Your task to perform on an android device: Show the shopping cart on costco. Search for razer blade on costco, select the first entry, and add it to the cart. Image 0: 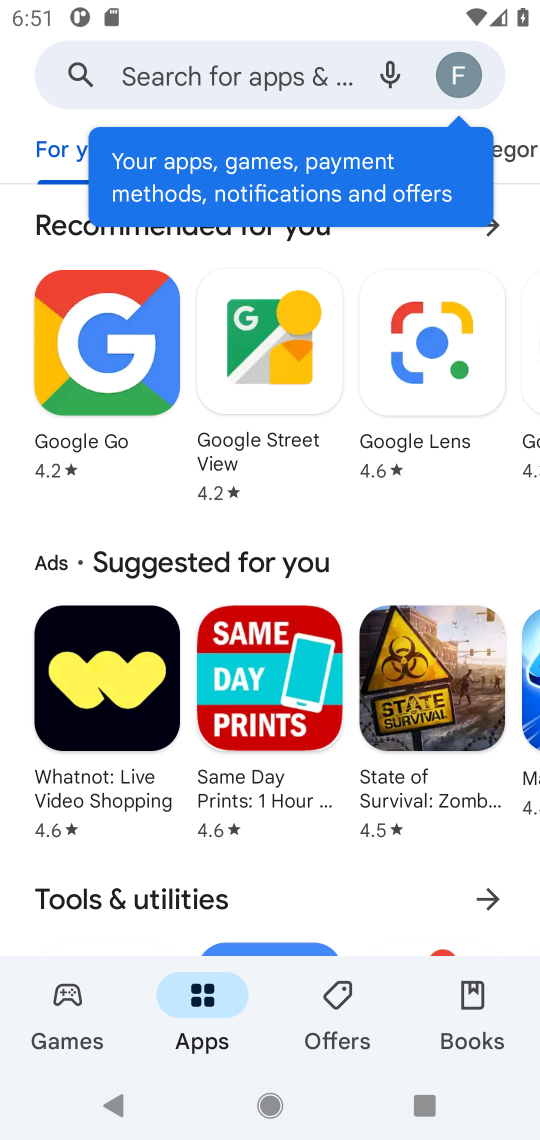
Step 0: press home button
Your task to perform on an android device: Show the shopping cart on costco. Search for razer blade on costco, select the first entry, and add it to the cart. Image 1: 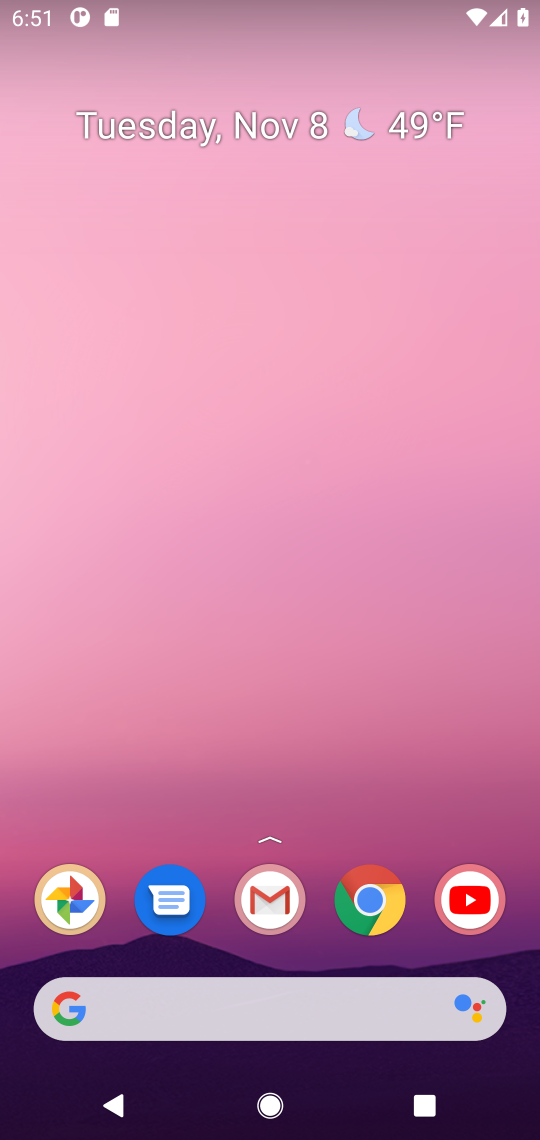
Step 1: drag from (304, 791) to (302, 321)
Your task to perform on an android device: Show the shopping cart on costco. Search for razer blade on costco, select the first entry, and add it to the cart. Image 2: 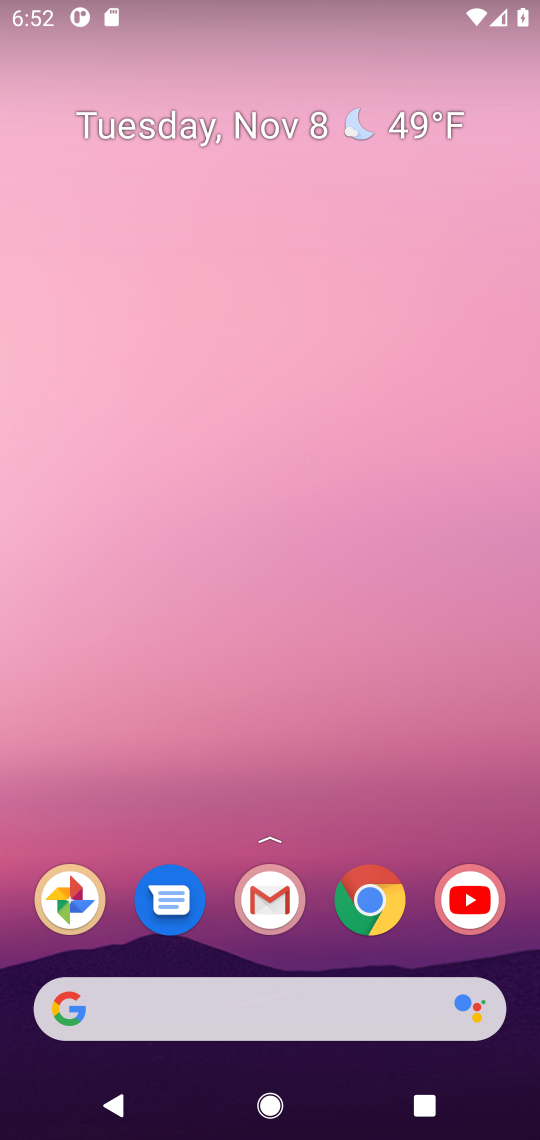
Step 2: drag from (285, 953) to (290, 27)
Your task to perform on an android device: Show the shopping cart on costco. Search for razer blade on costco, select the first entry, and add it to the cart. Image 3: 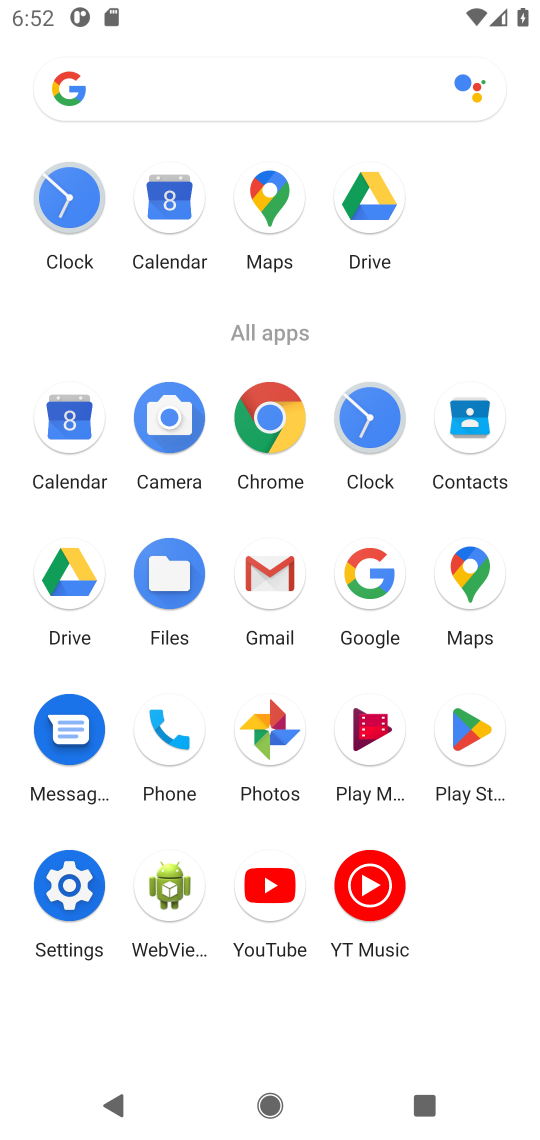
Step 3: click (364, 568)
Your task to perform on an android device: Show the shopping cart on costco. Search for razer blade on costco, select the first entry, and add it to the cart. Image 4: 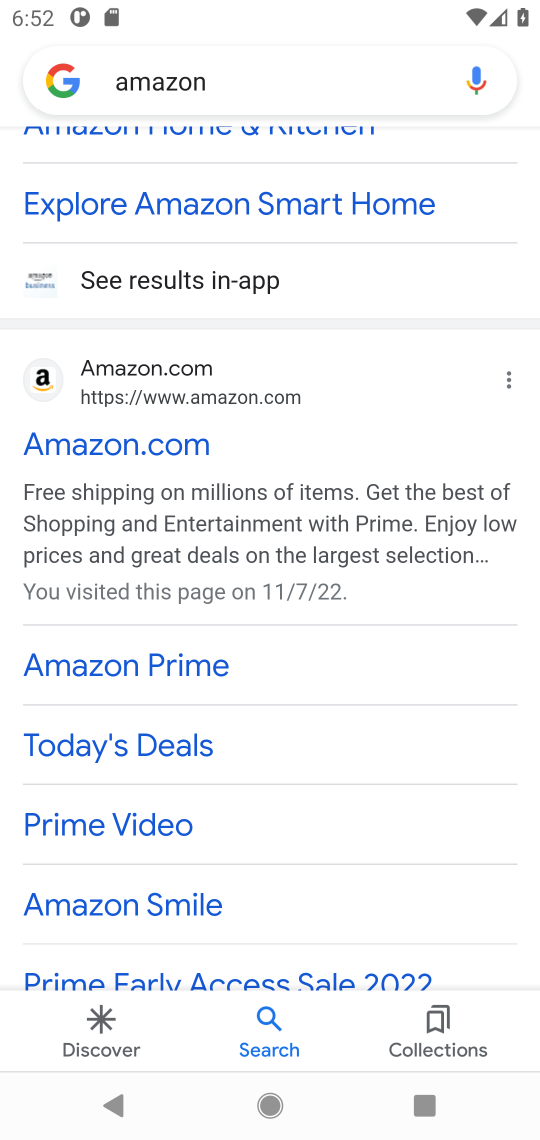
Step 4: click (273, 84)
Your task to perform on an android device: Show the shopping cart on costco. Search for razer blade on costco, select the first entry, and add it to the cart. Image 5: 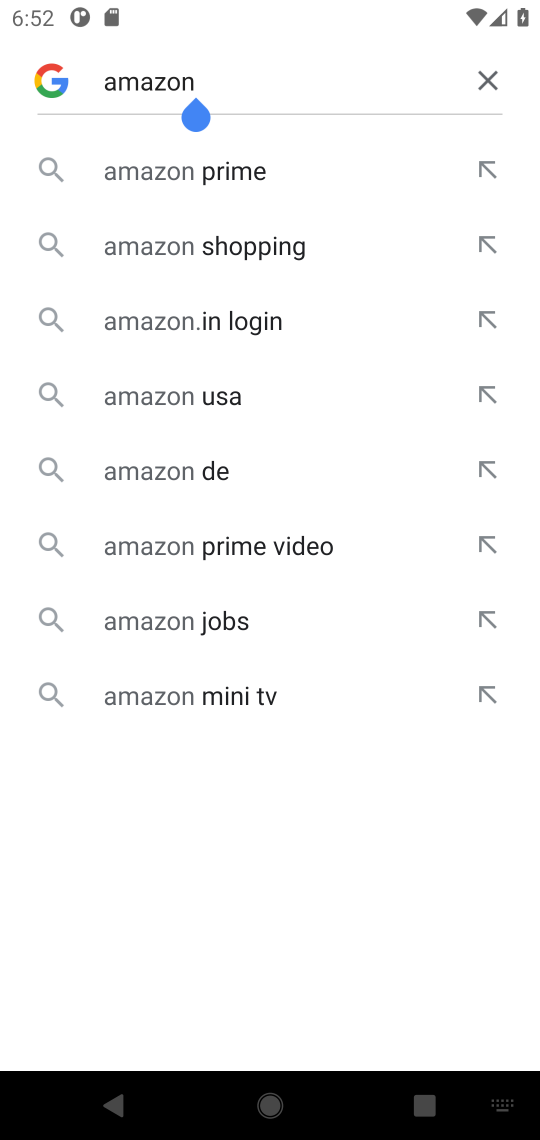
Step 5: click (469, 75)
Your task to perform on an android device: Show the shopping cart on costco. Search for razer blade on costco, select the first entry, and add it to the cart. Image 6: 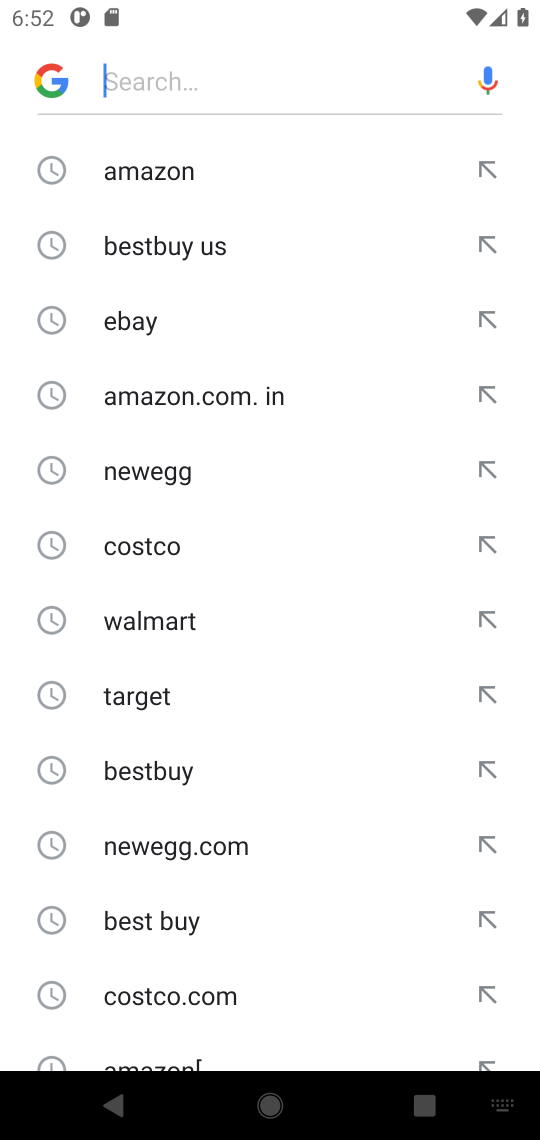
Step 6: click (144, 539)
Your task to perform on an android device: Show the shopping cart on costco. Search for razer blade on costco, select the first entry, and add it to the cart. Image 7: 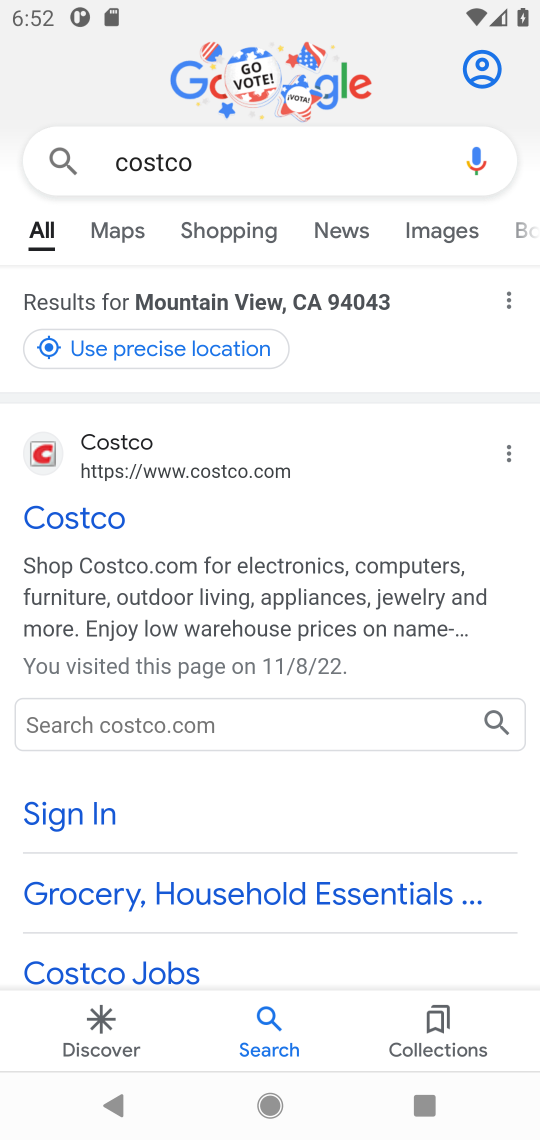
Step 7: click (37, 436)
Your task to perform on an android device: Show the shopping cart on costco. Search for razer blade on costco, select the first entry, and add it to the cart. Image 8: 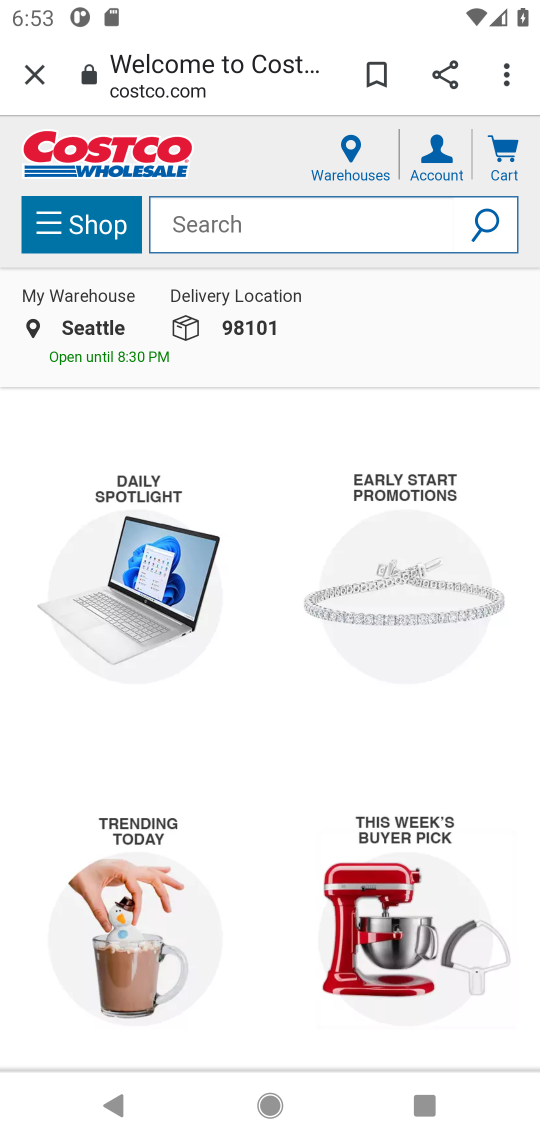
Step 8: click (318, 202)
Your task to perform on an android device: Show the shopping cart on costco. Search for razer blade on costco, select the first entry, and add it to the cart. Image 9: 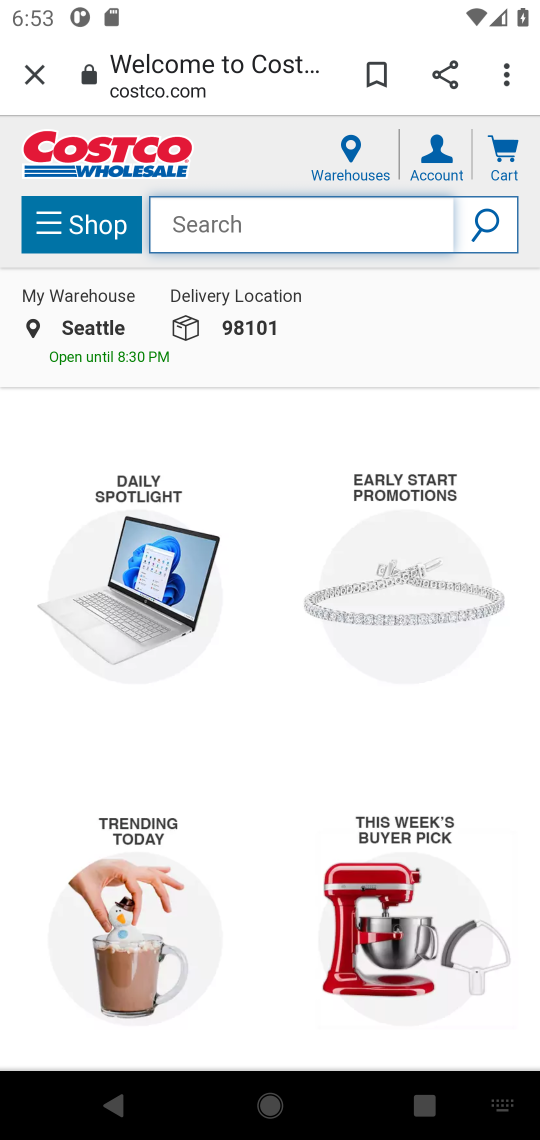
Step 9: type "razer "
Your task to perform on an android device: Show the shopping cart on costco. Search for razer blade on costco, select the first entry, and add it to the cart. Image 10: 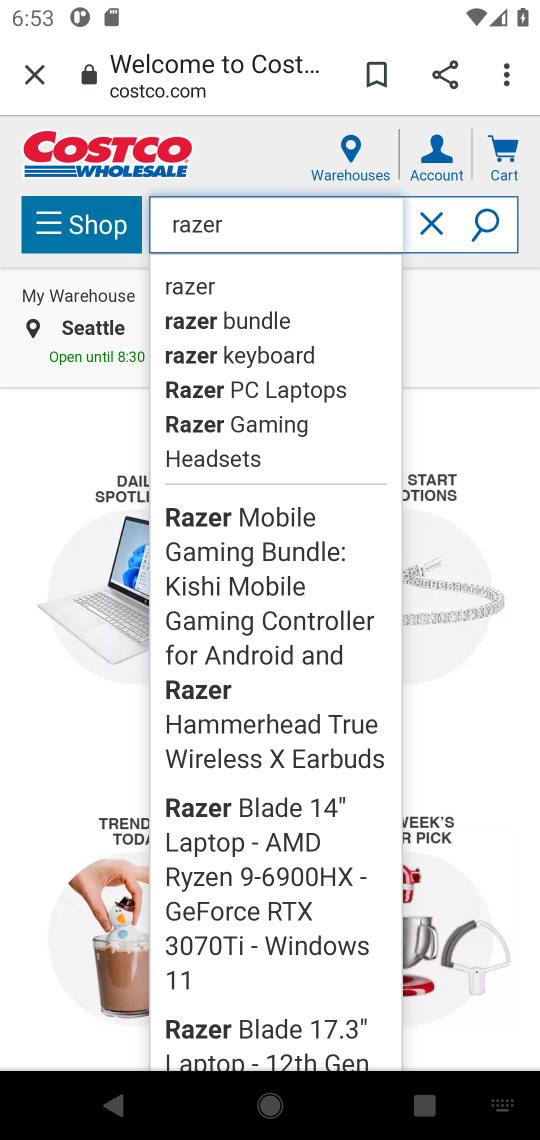
Step 10: click (200, 283)
Your task to perform on an android device: Show the shopping cart on costco. Search for razer blade on costco, select the first entry, and add it to the cart. Image 11: 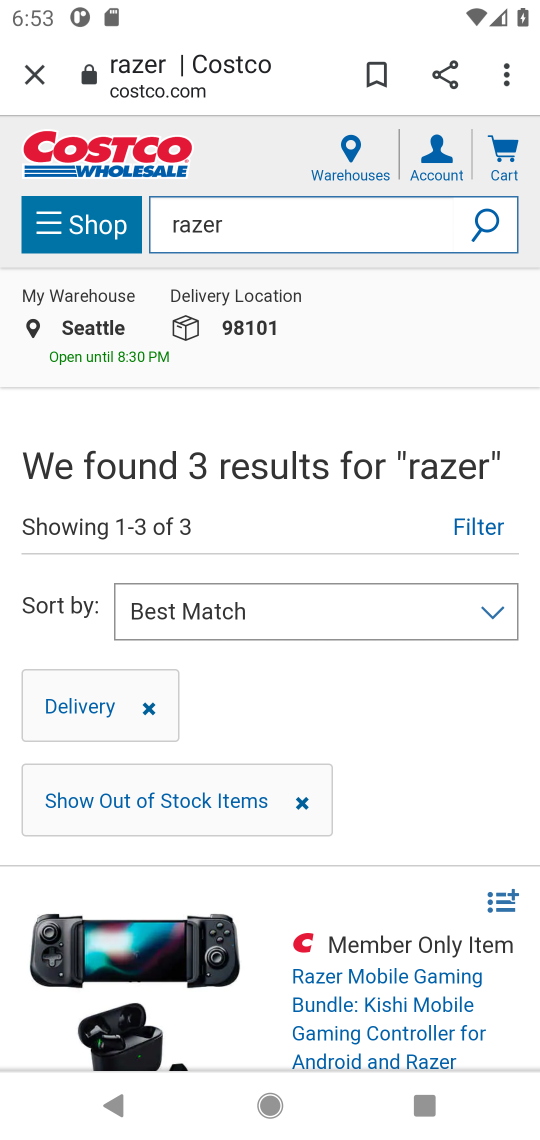
Step 11: click (486, 209)
Your task to perform on an android device: Show the shopping cart on costco. Search for razer blade on costco, select the first entry, and add it to the cart. Image 12: 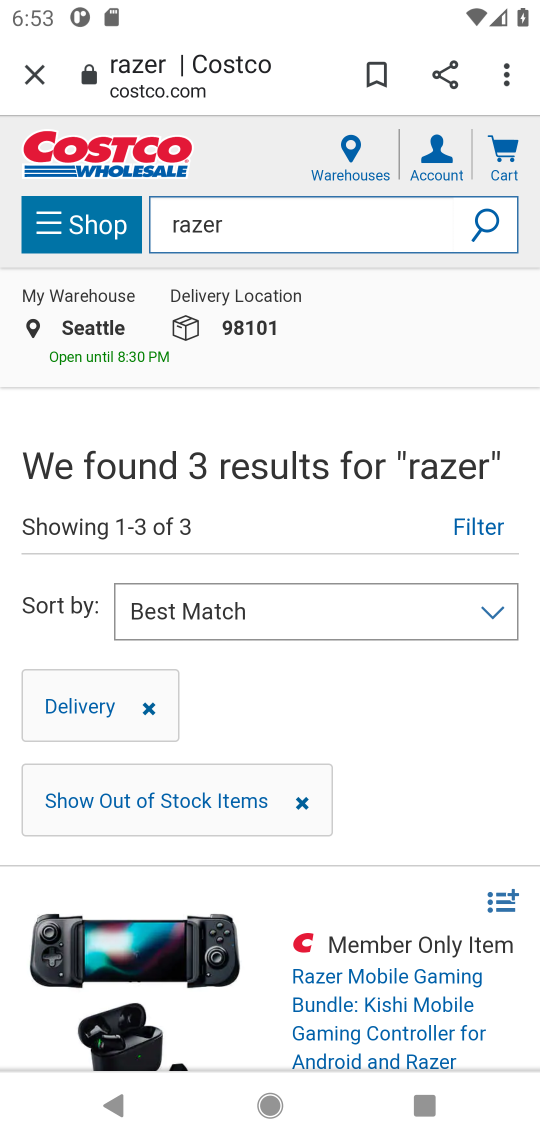
Step 12: click (301, 209)
Your task to perform on an android device: Show the shopping cart on costco. Search for razer blade on costco, select the first entry, and add it to the cart. Image 13: 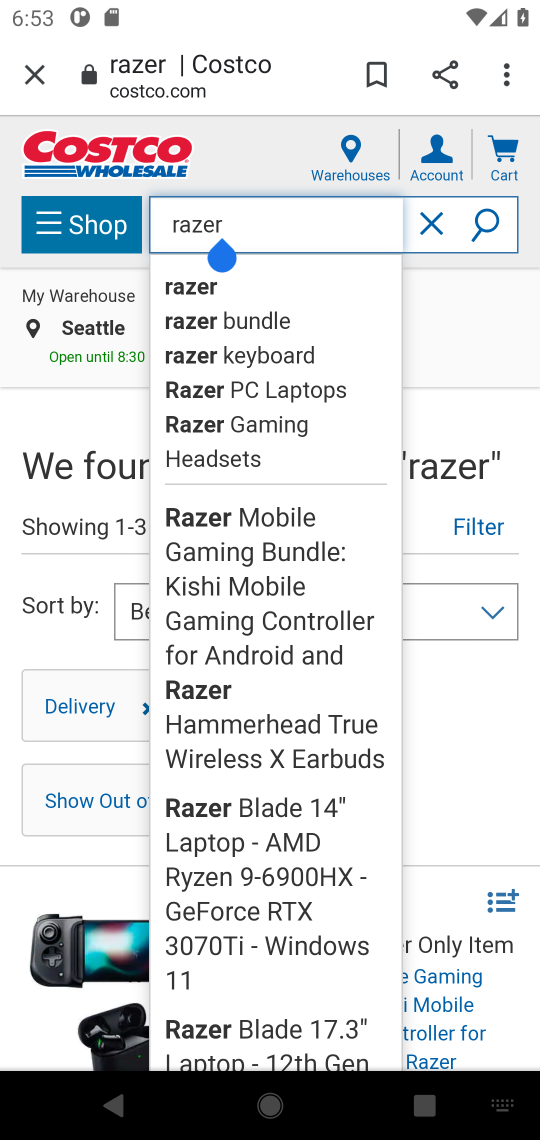
Step 13: click (448, 206)
Your task to perform on an android device: Show the shopping cart on costco. Search for razer blade on costco, select the first entry, and add it to the cart. Image 14: 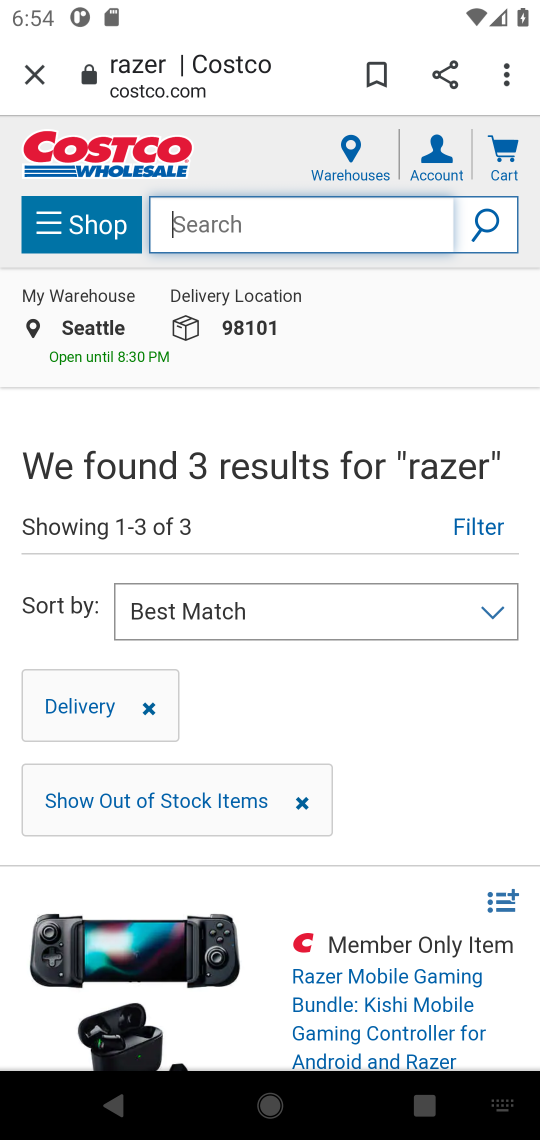
Step 14: click (284, 214)
Your task to perform on an android device: Show the shopping cart on costco. Search for razer blade on costco, select the first entry, and add it to the cart. Image 15: 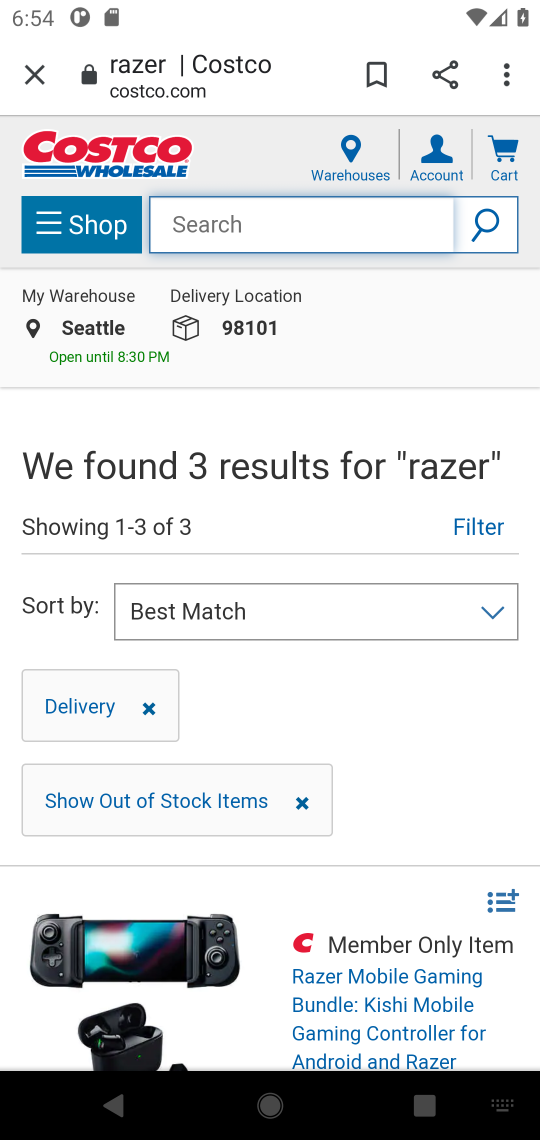
Step 15: type " razer blade "
Your task to perform on an android device: Show the shopping cart on costco. Search for razer blade on costco, select the first entry, and add it to the cart. Image 16: 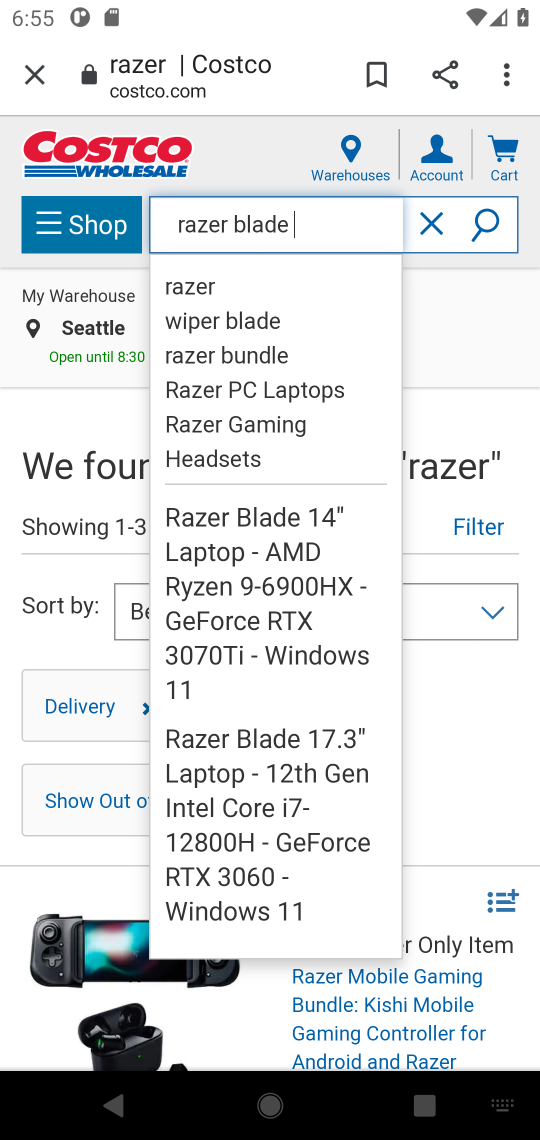
Step 16: click (237, 323)
Your task to perform on an android device: Show the shopping cart on costco. Search for razer blade on costco, select the first entry, and add it to the cart. Image 17: 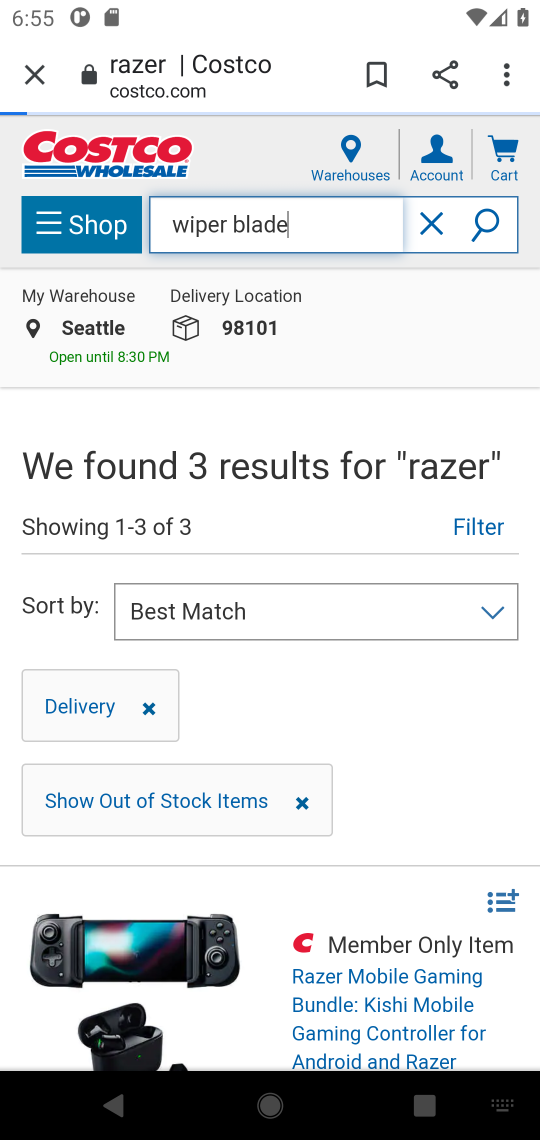
Step 17: click (237, 323)
Your task to perform on an android device: Show the shopping cart on costco. Search for razer blade on costco, select the first entry, and add it to the cart. Image 18: 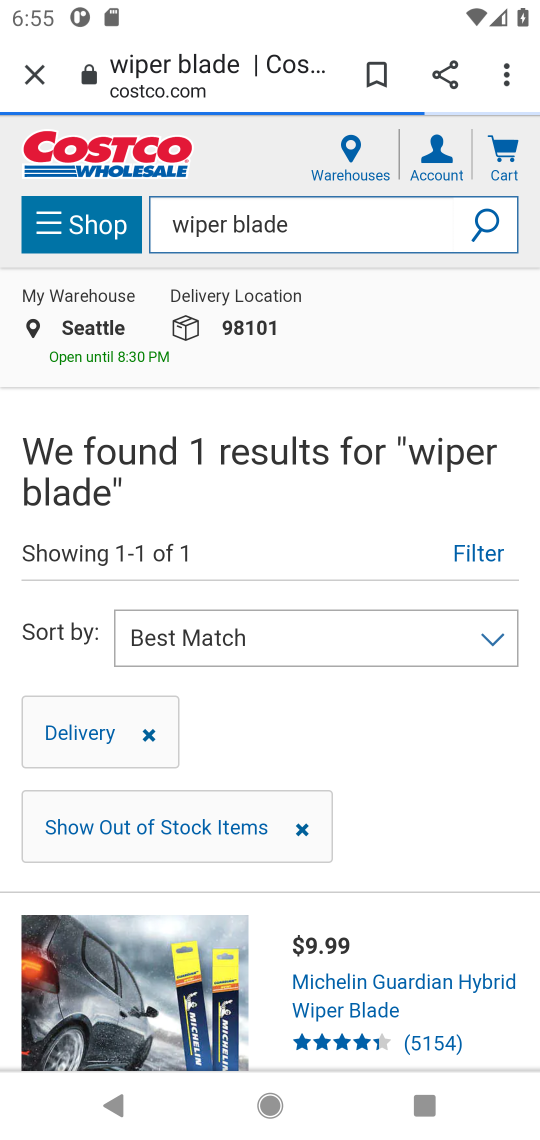
Step 18: click (491, 229)
Your task to perform on an android device: Show the shopping cart on costco. Search for razer blade on costco, select the first entry, and add it to the cart. Image 19: 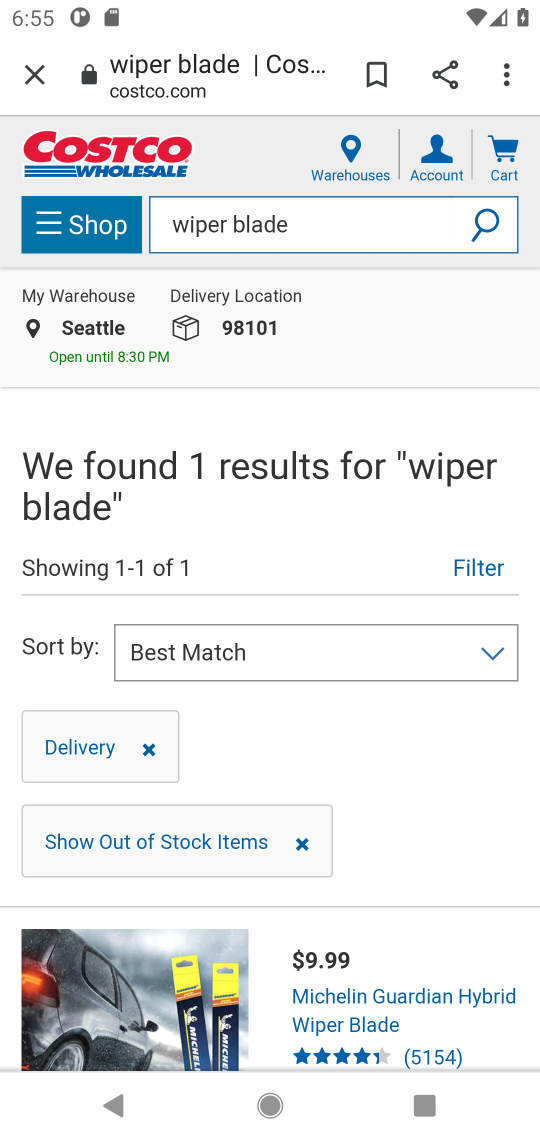
Step 19: click (356, 225)
Your task to perform on an android device: Show the shopping cart on costco. Search for razer blade on costco, select the first entry, and add it to the cart. Image 20: 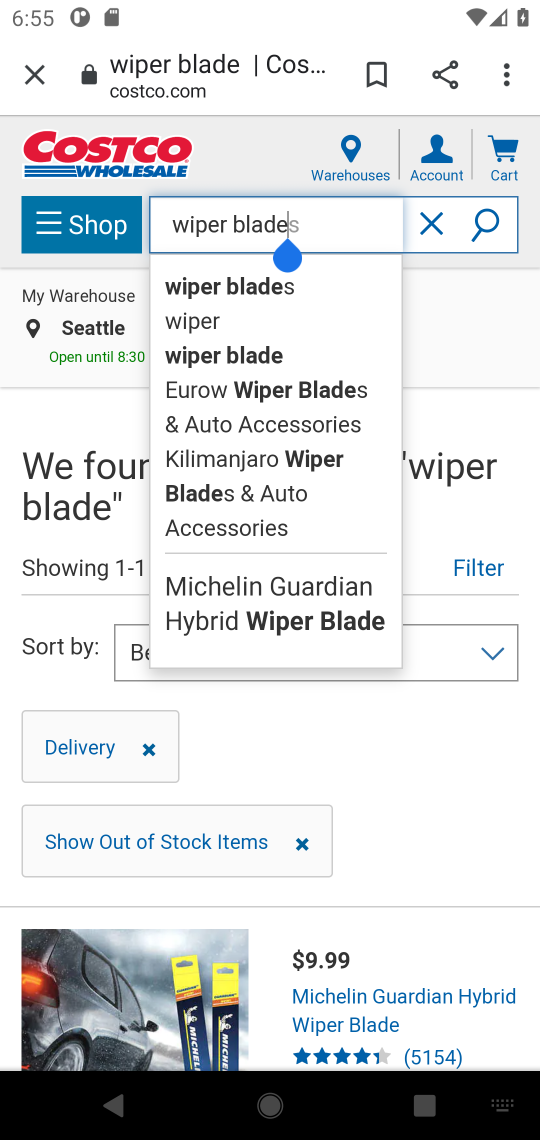
Step 20: click (425, 216)
Your task to perform on an android device: Show the shopping cart on costco. Search for razer blade on costco, select the first entry, and add it to the cart. Image 21: 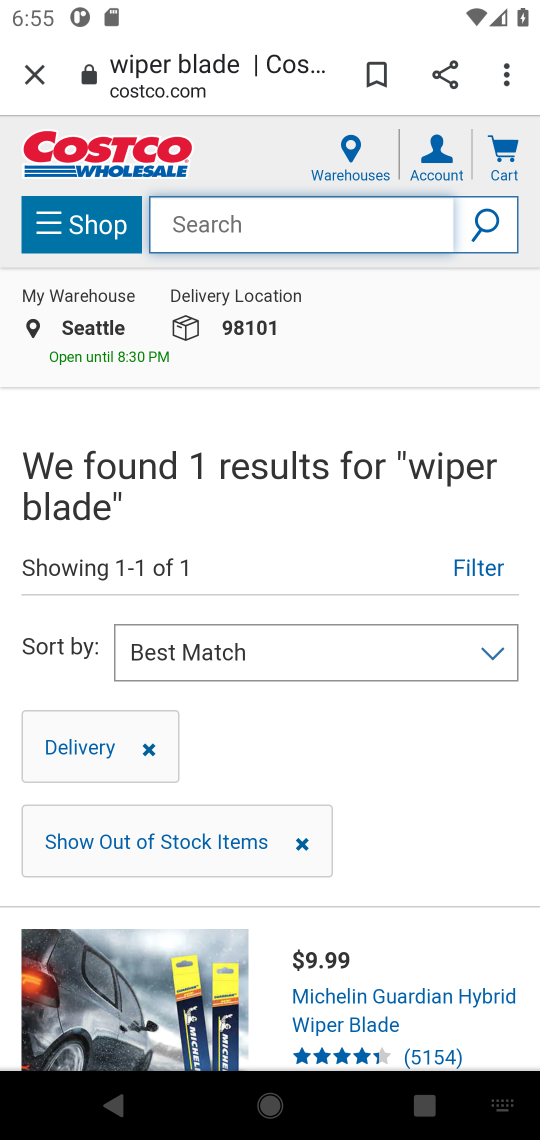
Step 21: click (264, 224)
Your task to perform on an android device: Show the shopping cart on costco. Search for razer blade on costco, select the first entry, and add it to the cart. Image 22: 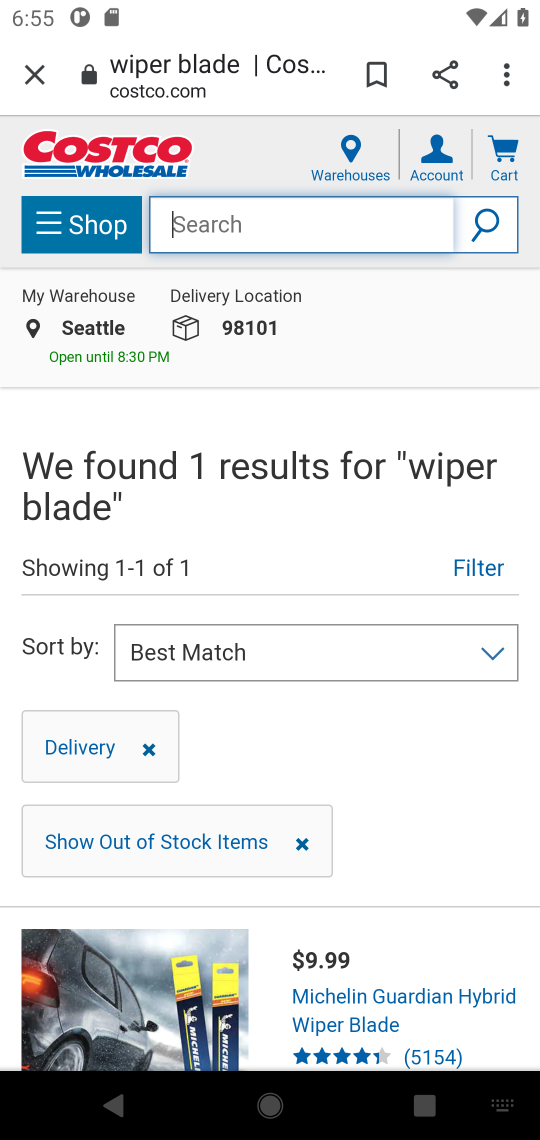
Step 22: type " razer blade "
Your task to perform on an android device: Show the shopping cart on costco. Search for razer blade on costco, select the first entry, and add it to the cart. Image 23: 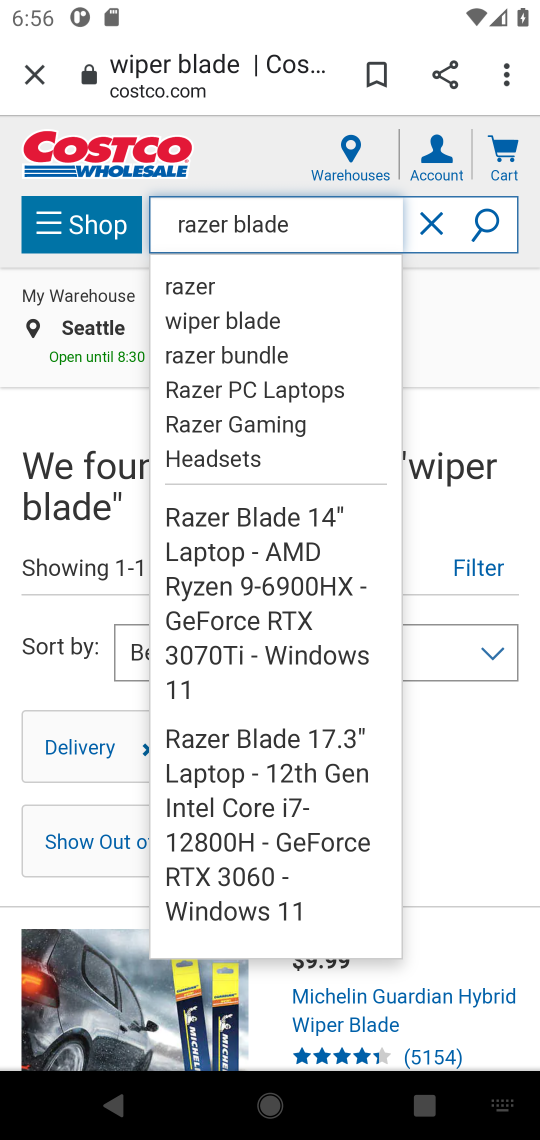
Step 23: click (196, 281)
Your task to perform on an android device: Show the shopping cart on costco. Search for razer blade on costco, select the first entry, and add it to the cart. Image 24: 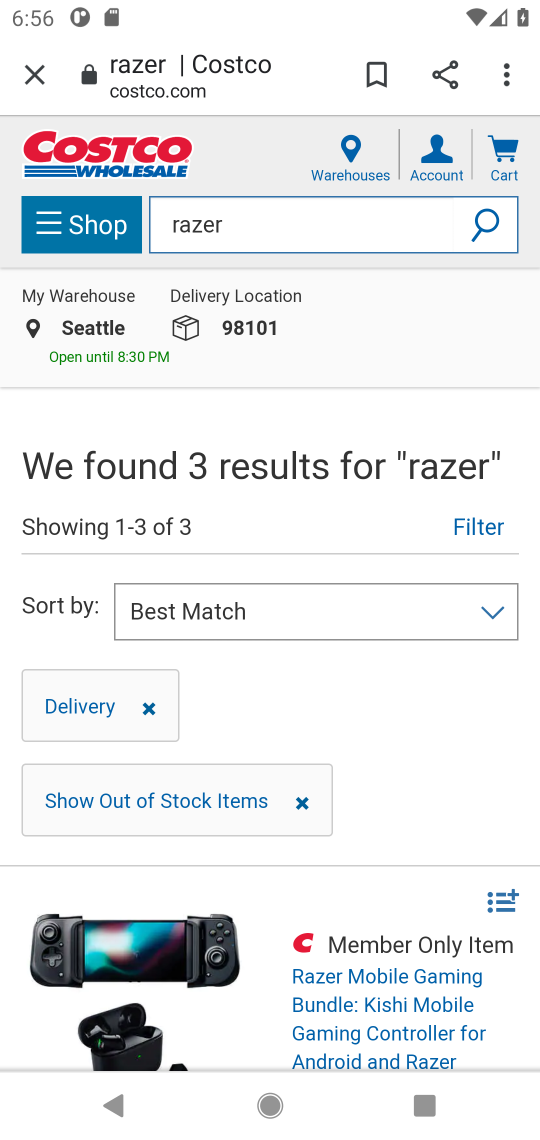
Step 24: click (347, 218)
Your task to perform on an android device: Show the shopping cart on costco. Search for razer blade on costco, select the first entry, and add it to the cart. Image 25: 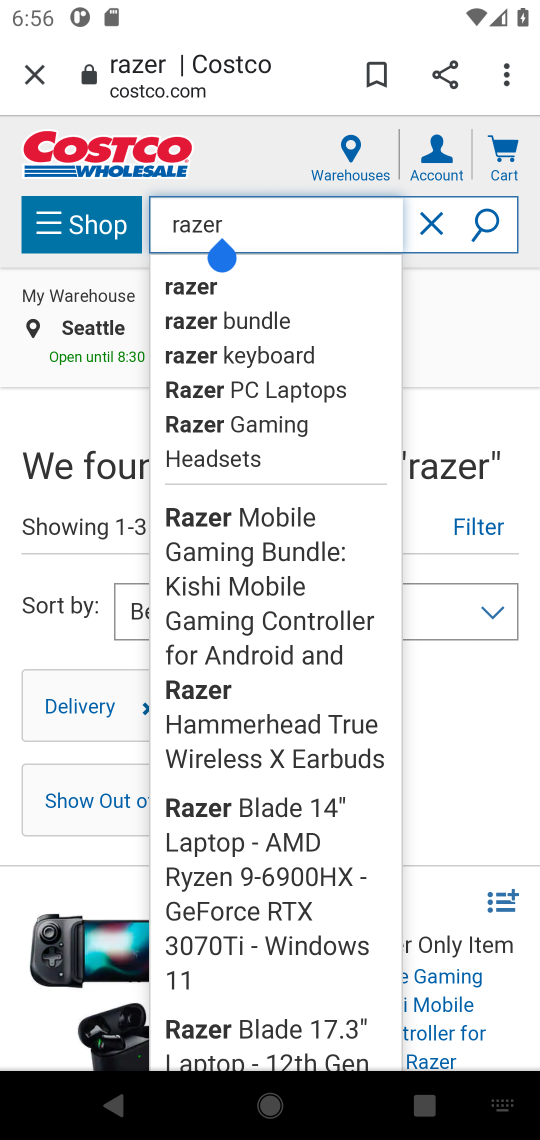
Step 25: click (466, 212)
Your task to perform on an android device: Show the shopping cart on costco. Search for razer blade on costco, select the first entry, and add it to the cart. Image 26: 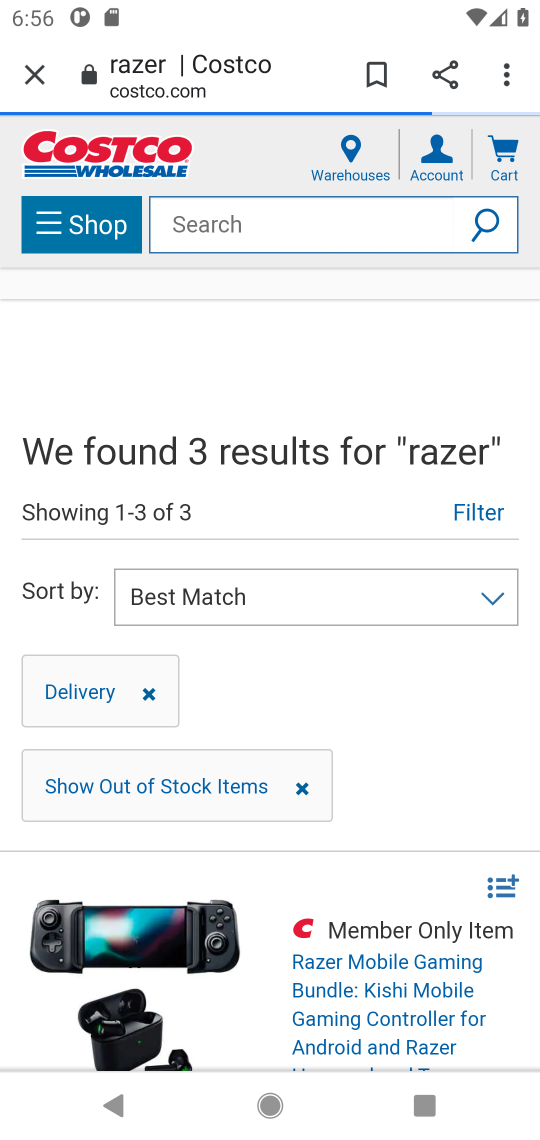
Step 26: click (292, 804)
Your task to perform on an android device: Show the shopping cart on costco. Search for razer blade on costco, select the first entry, and add it to the cart. Image 27: 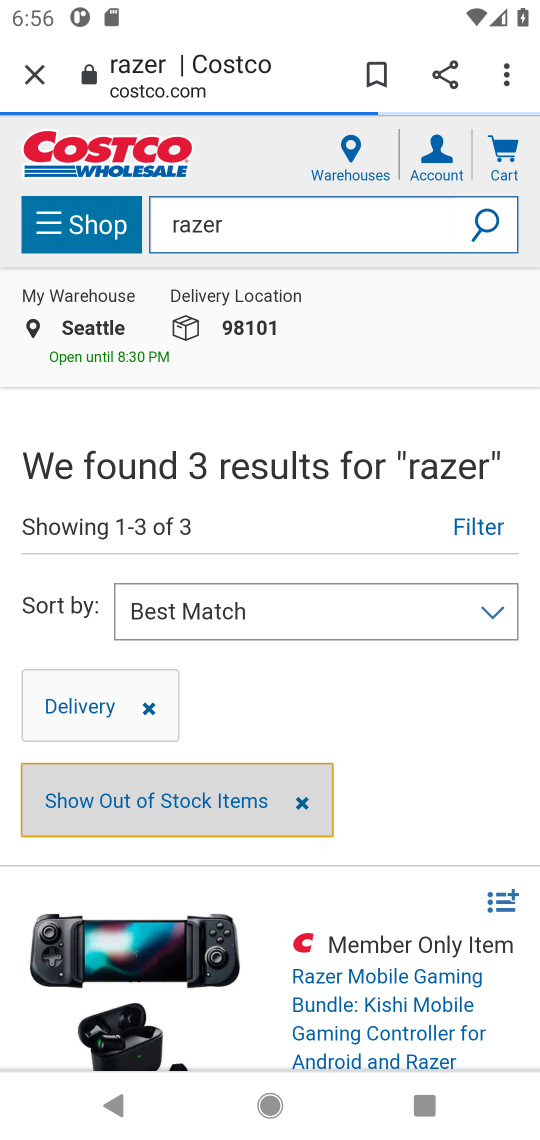
Step 27: drag from (359, 985) to (372, 318)
Your task to perform on an android device: Show the shopping cart on costco. Search for razer blade on costco, select the first entry, and add it to the cart. Image 28: 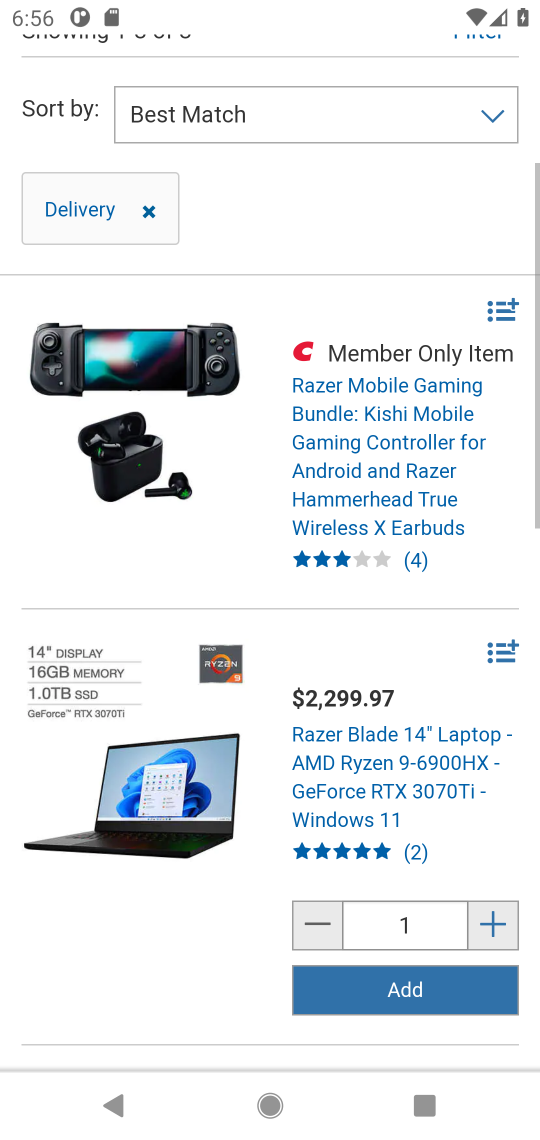
Step 28: drag from (319, 898) to (305, 439)
Your task to perform on an android device: Show the shopping cart on costco. Search for razer blade on costco, select the first entry, and add it to the cart. Image 29: 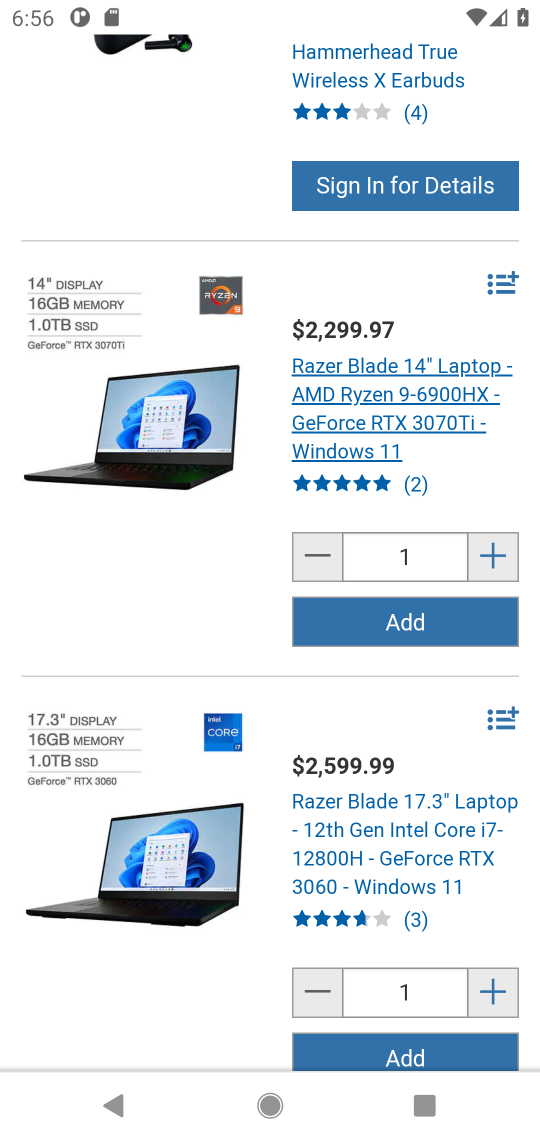
Step 29: click (326, 541)
Your task to perform on an android device: Show the shopping cart on costco. Search for razer blade on costco, select the first entry, and add it to the cart. Image 30: 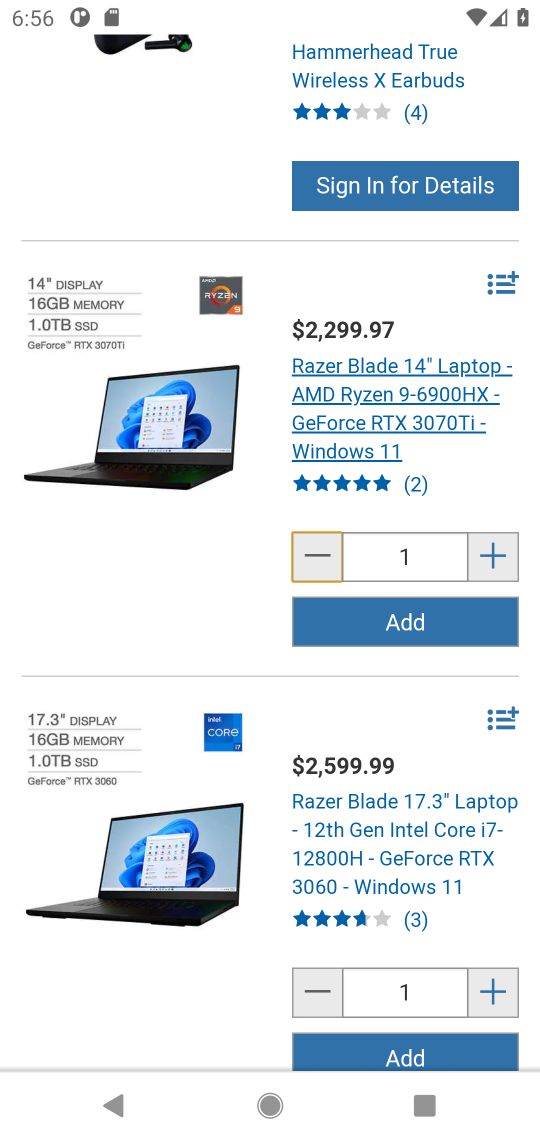
Step 30: click (344, 575)
Your task to perform on an android device: Show the shopping cart on costco. Search for razer blade on costco, select the first entry, and add it to the cart. Image 31: 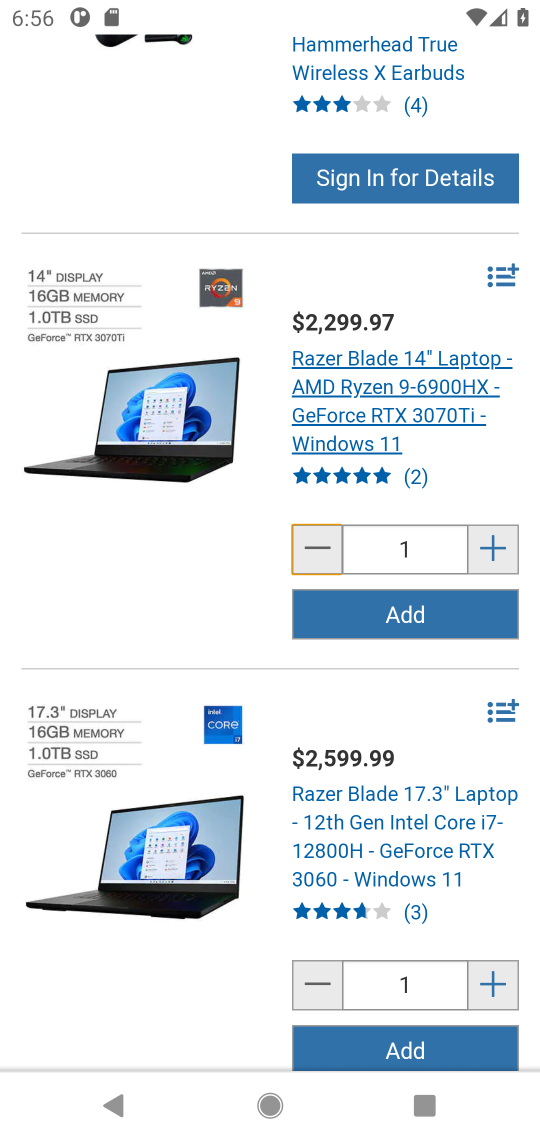
Step 31: click (411, 970)
Your task to perform on an android device: Show the shopping cart on costco. Search for razer blade on costco, select the first entry, and add it to the cart. Image 32: 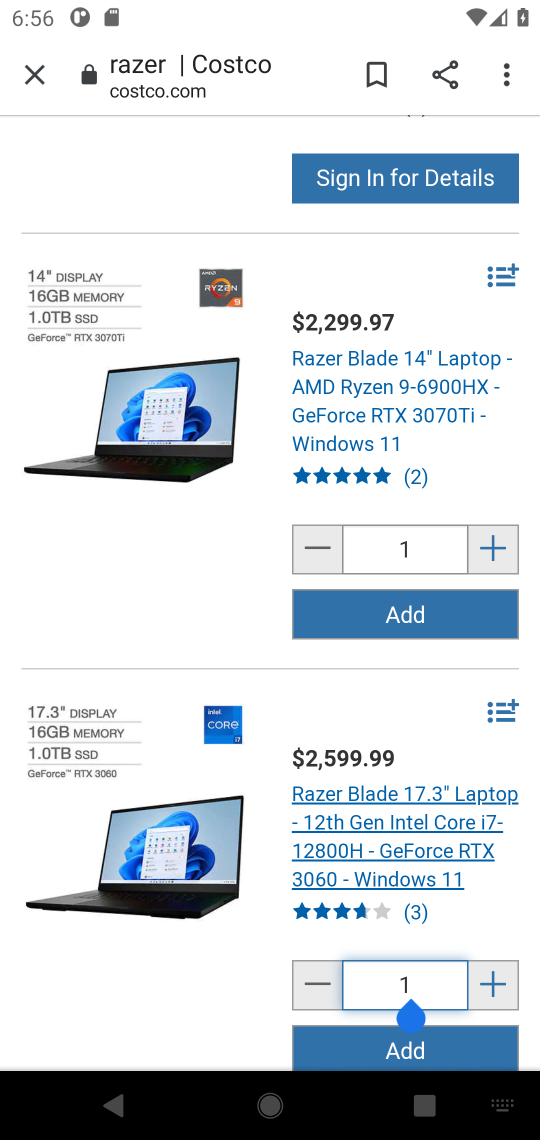
Step 32: click (456, 1036)
Your task to perform on an android device: Show the shopping cart on costco. Search for razer blade on costco, select the first entry, and add it to the cart. Image 33: 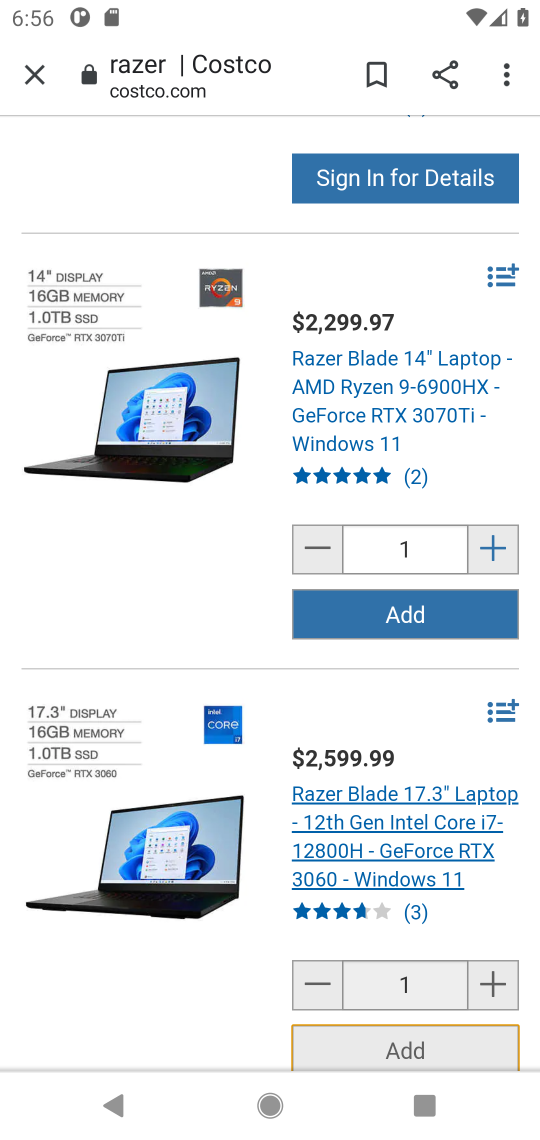
Step 33: click (456, 1036)
Your task to perform on an android device: Show the shopping cart on costco. Search for razer blade on costco, select the first entry, and add it to the cart. Image 34: 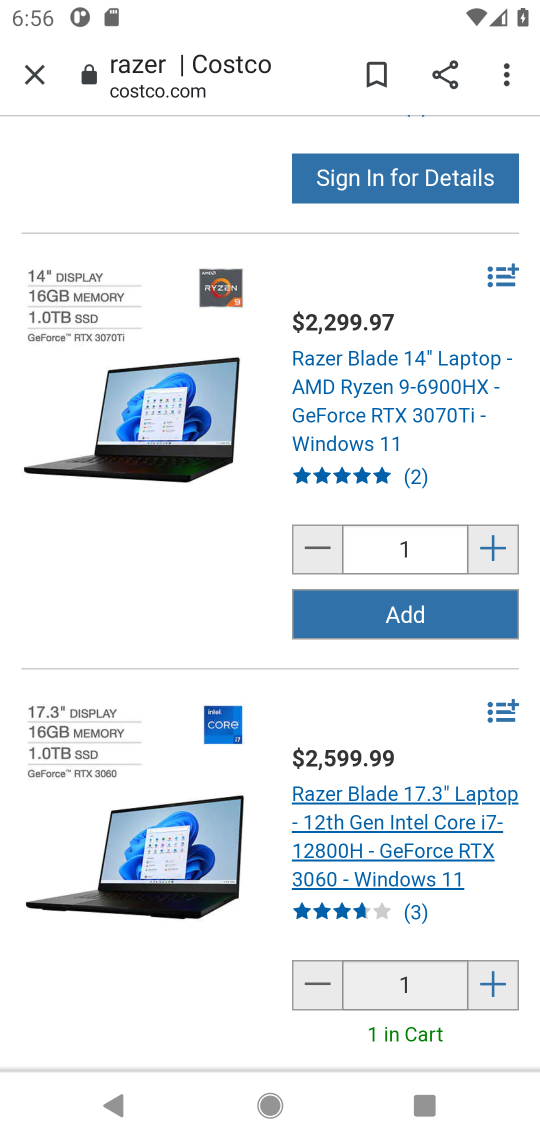
Step 34: task complete